Your task to perform on an android device: check the backup settings in the google photos Image 0: 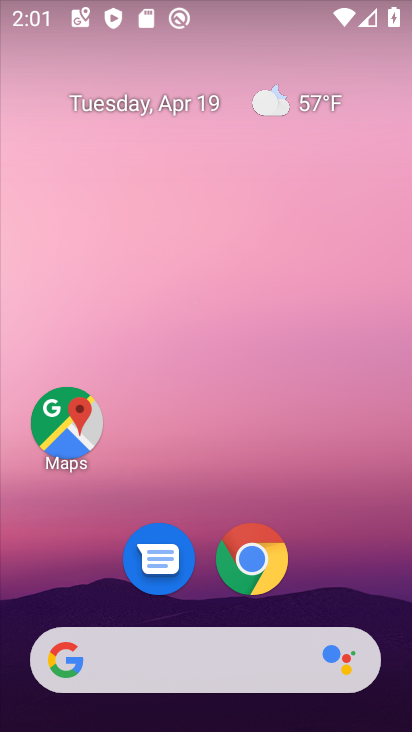
Step 0: drag from (210, 595) to (204, 24)
Your task to perform on an android device: check the backup settings in the google photos Image 1: 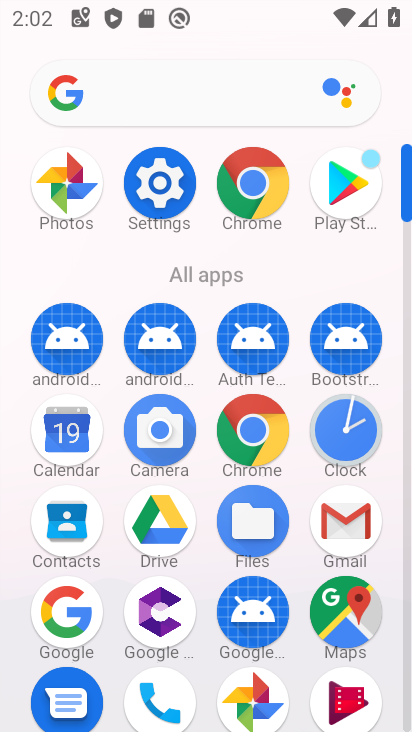
Step 1: click (250, 700)
Your task to perform on an android device: check the backup settings in the google photos Image 2: 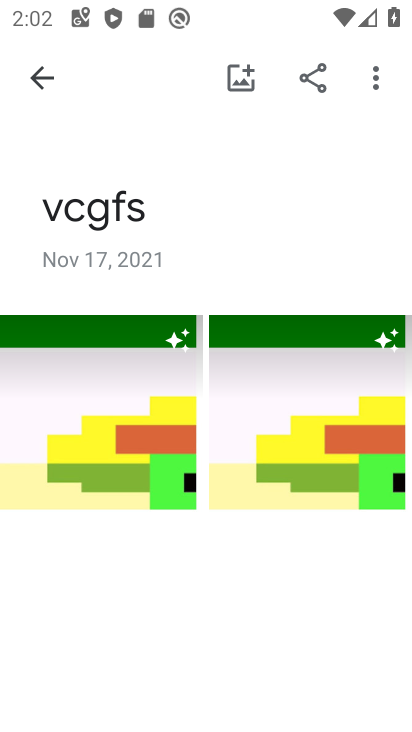
Step 2: click (38, 70)
Your task to perform on an android device: check the backup settings in the google photos Image 3: 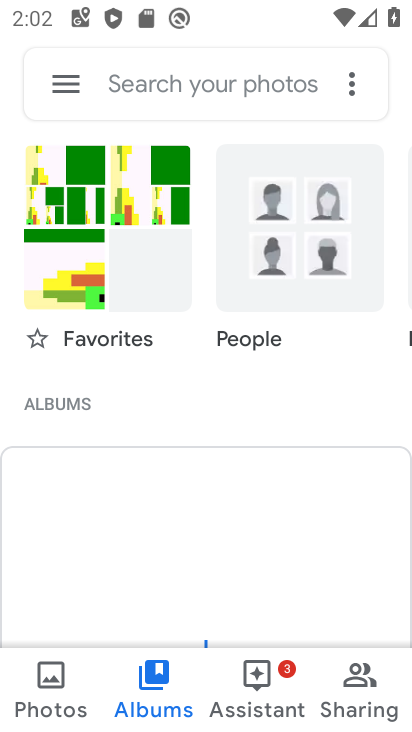
Step 3: click (61, 79)
Your task to perform on an android device: check the backup settings in the google photos Image 4: 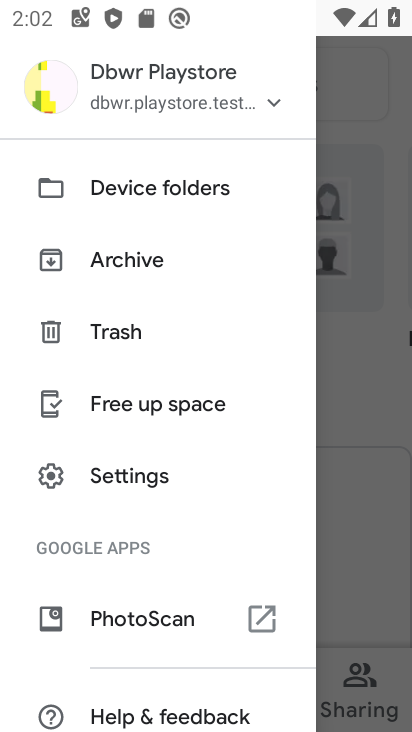
Step 4: click (152, 472)
Your task to perform on an android device: check the backup settings in the google photos Image 5: 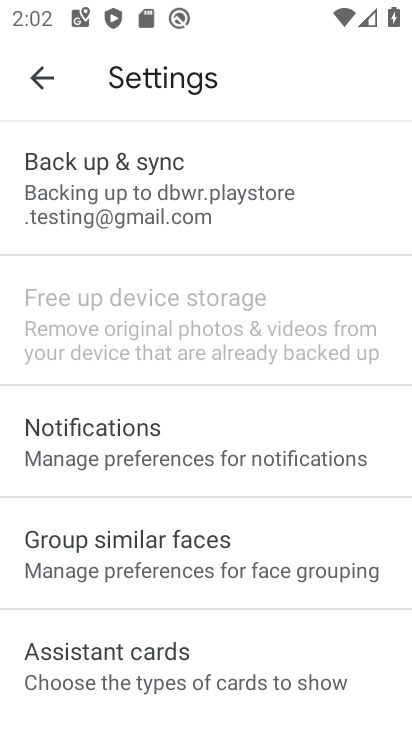
Step 5: click (161, 156)
Your task to perform on an android device: check the backup settings in the google photos Image 6: 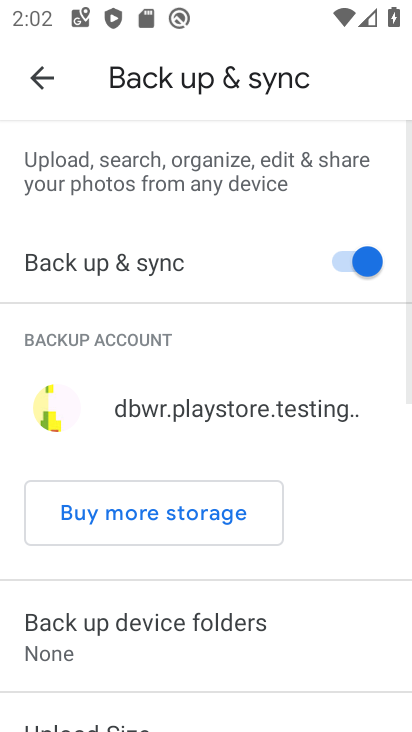
Step 6: task complete